Your task to perform on an android device: toggle data saver in the chrome app Image 0: 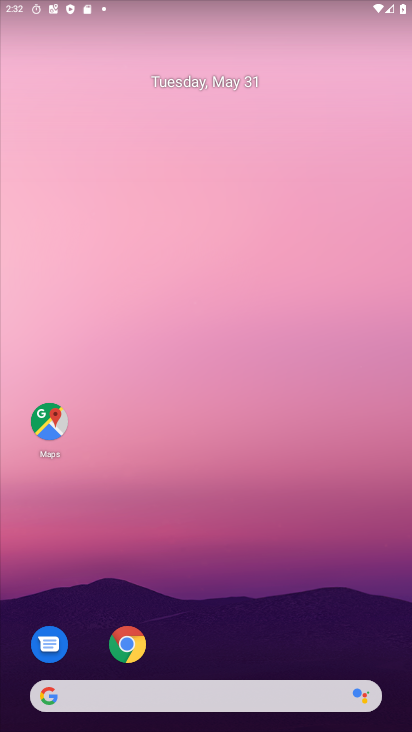
Step 0: click (125, 646)
Your task to perform on an android device: toggle data saver in the chrome app Image 1: 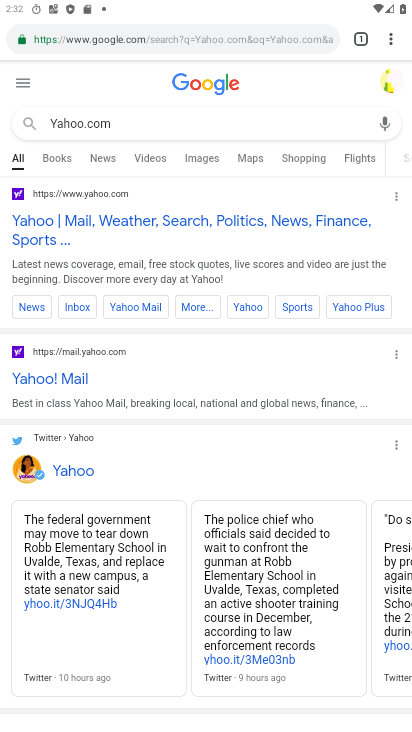
Step 1: click (385, 35)
Your task to perform on an android device: toggle data saver in the chrome app Image 2: 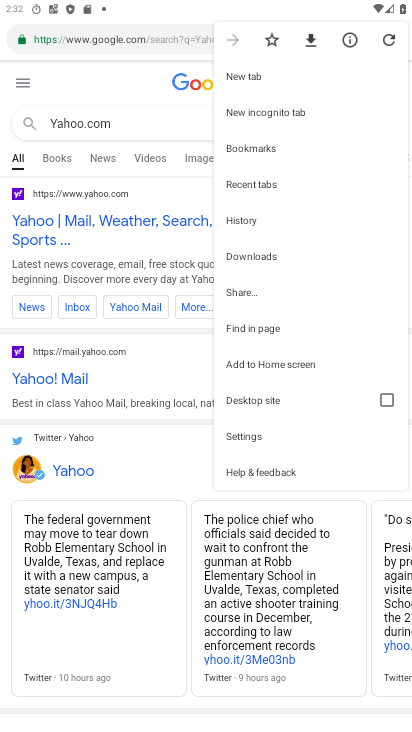
Step 2: click (240, 441)
Your task to perform on an android device: toggle data saver in the chrome app Image 3: 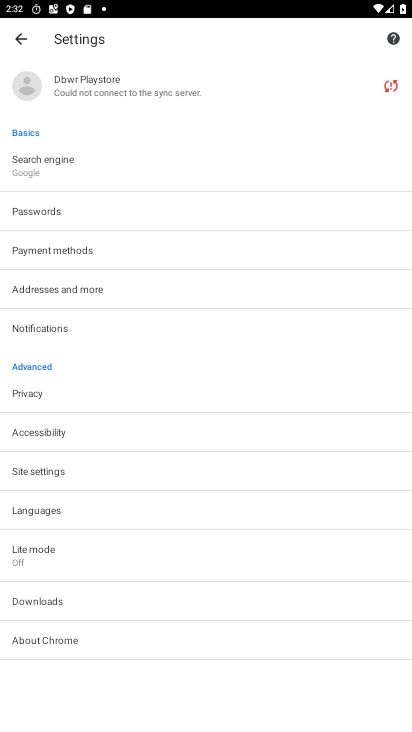
Step 3: click (38, 553)
Your task to perform on an android device: toggle data saver in the chrome app Image 4: 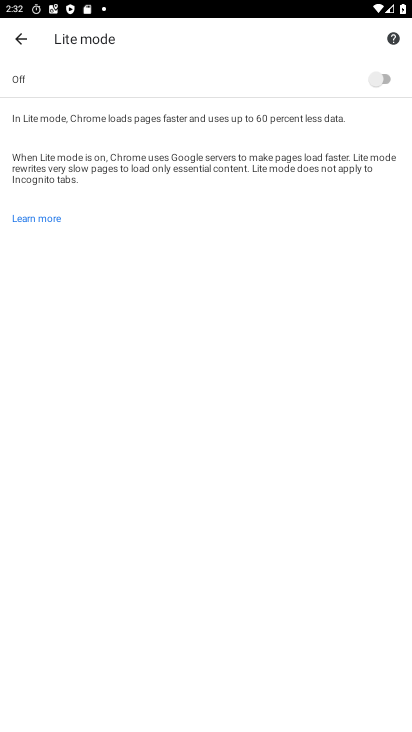
Step 4: click (383, 74)
Your task to perform on an android device: toggle data saver in the chrome app Image 5: 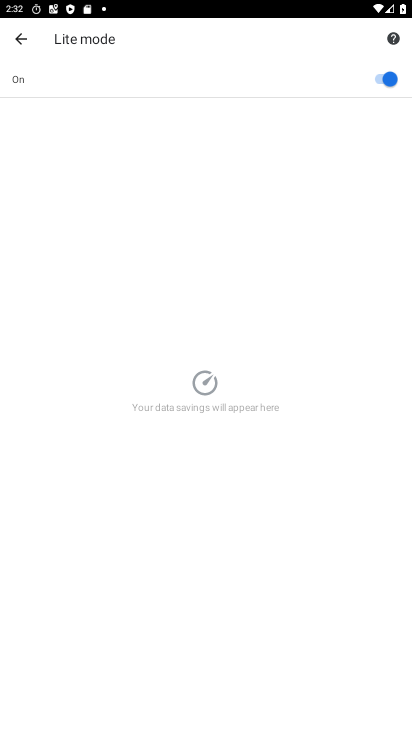
Step 5: task complete